Your task to perform on an android device: find photos in the google photos app Image 0: 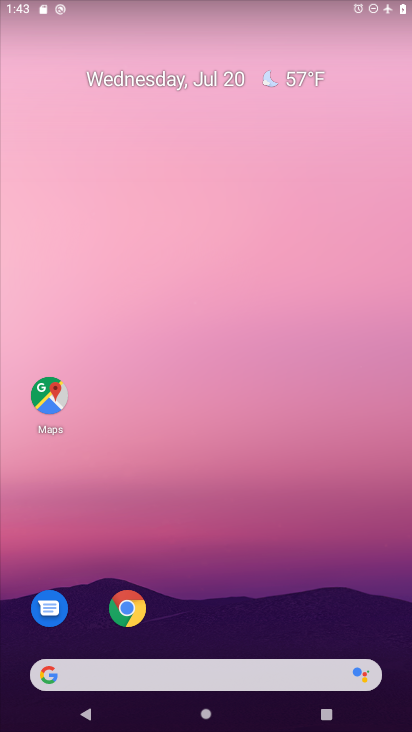
Step 0: drag from (277, 695) to (287, 248)
Your task to perform on an android device: find photos in the google photos app Image 1: 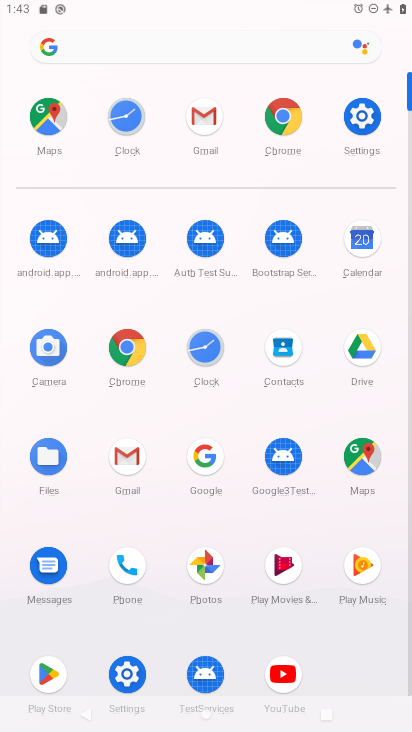
Step 1: click (205, 568)
Your task to perform on an android device: find photos in the google photos app Image 2: 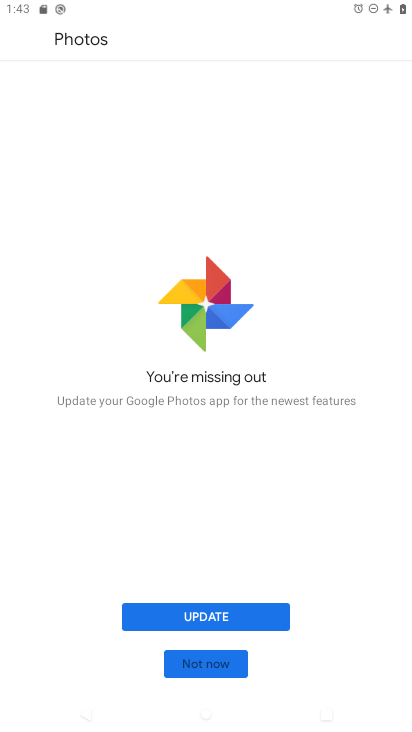
Step 2: click (262, 614)
Your task to perform on an android device: find photos in the google photos app Image 3: 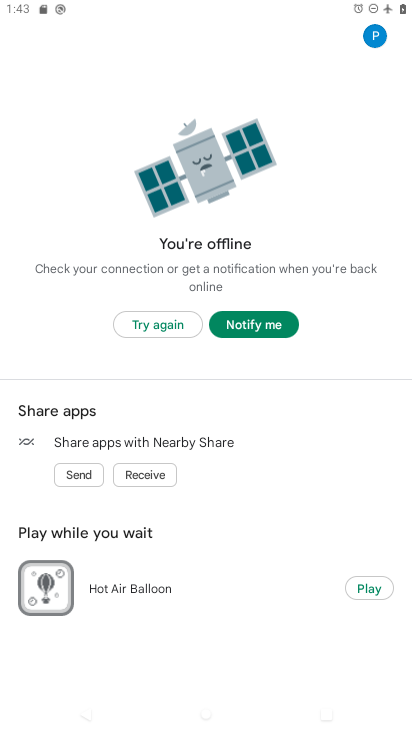
Step 3: click (189, 326)
Your task to perform on an android device: find photos in the google photos app Image 4: 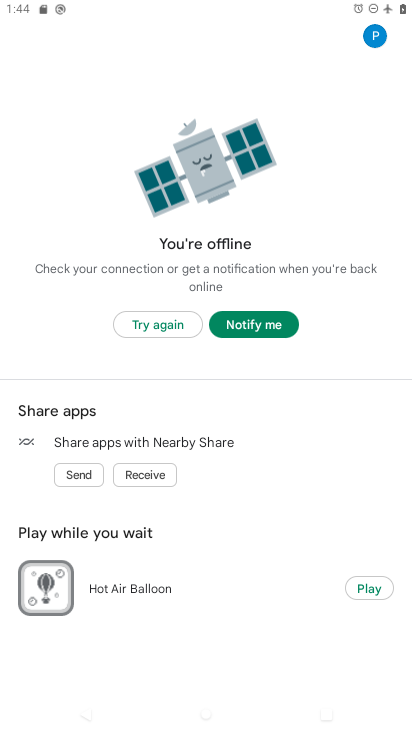
Step 4: task complete